Your task to perform on an android device: Open Google Chrome and open the bookmarks view Image 0: 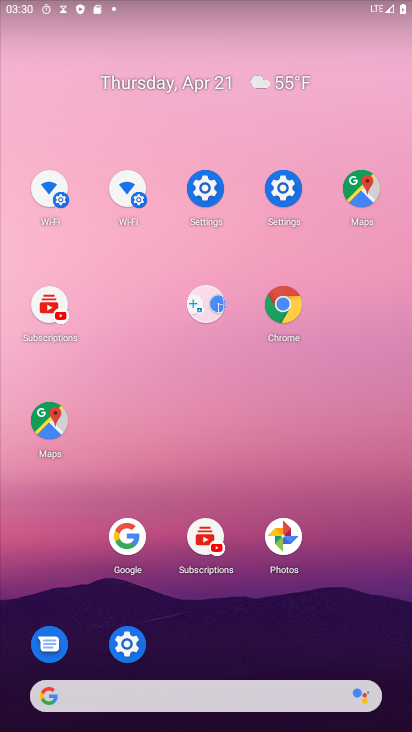
Step 0: drag from (297, 641) to (202, 81)
Your task to perform on an android device: Open Google Chrome and open the bookmarks view Image 1: 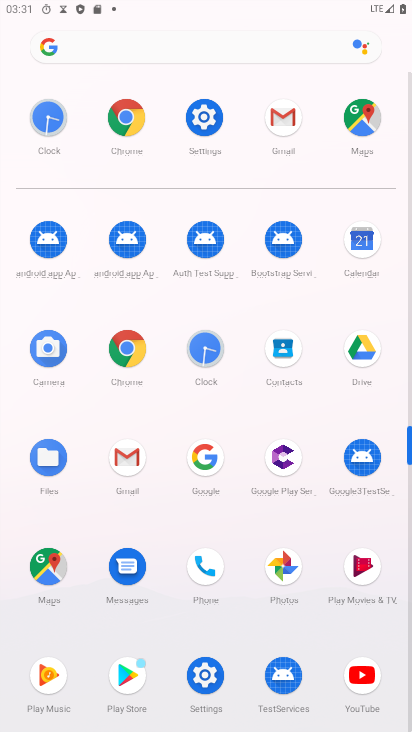
Step 1: drag from (236, 628) to (164, 126)
Your task to perform on an android device: Open Google Chrome and open the bookmarks view Image 2: 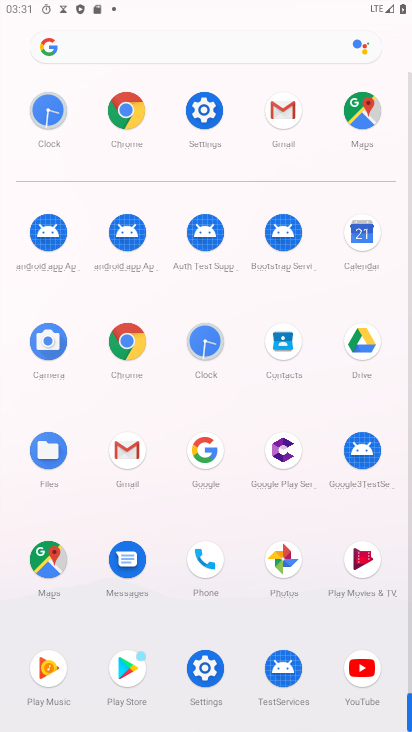
Step 2: click (204, 457)
Your task to perform on an android device: Open Google Chrome and open the bookmarks view Image 3: 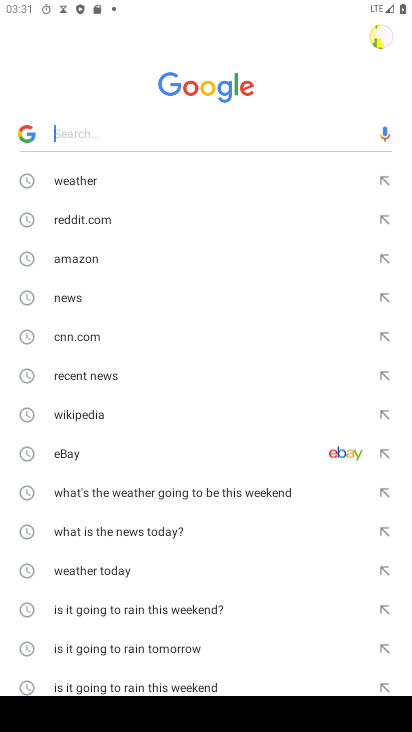
Step 3: press home button
Your task to perform on an android device: Open Google Chrome and open the bookmarks view Image 4: 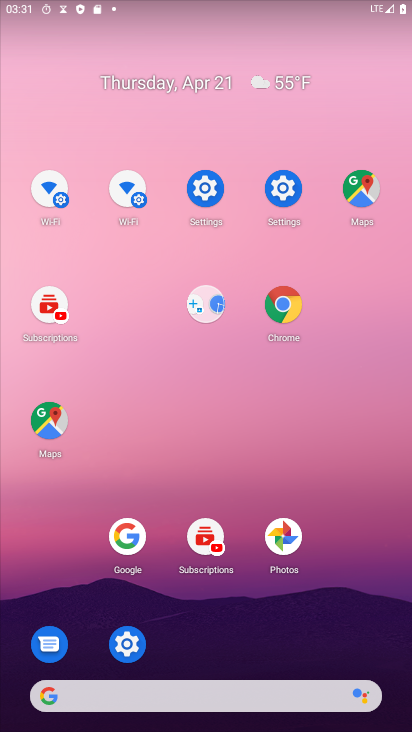
Step 4: click (281, 306)
Your task to perform on an android device: Open Google Chrome and open the bookmarks view Image 5: 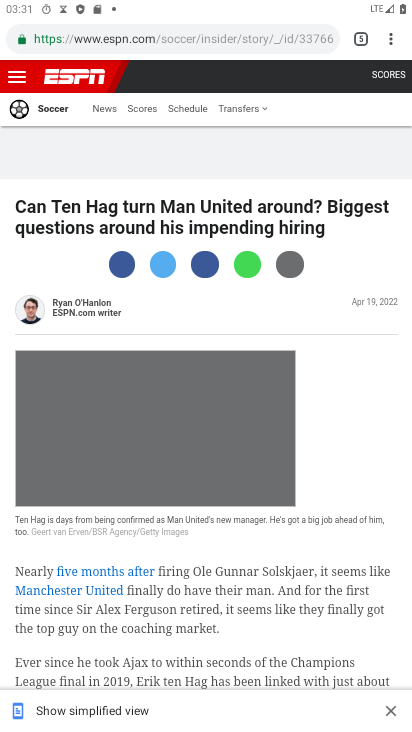
Step 5: drag from (390, 36) to (267, 187)
Your task to perform on an android device: Open Google Chrome and open the bookmarks view Image 6: 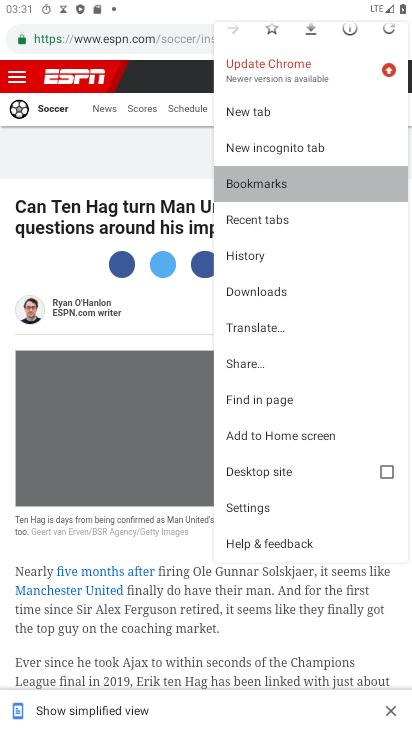
Step 6: click (267, 187)
Your task to perform on an android device: Open Google Chrome and open the bookmarks view Image 7: 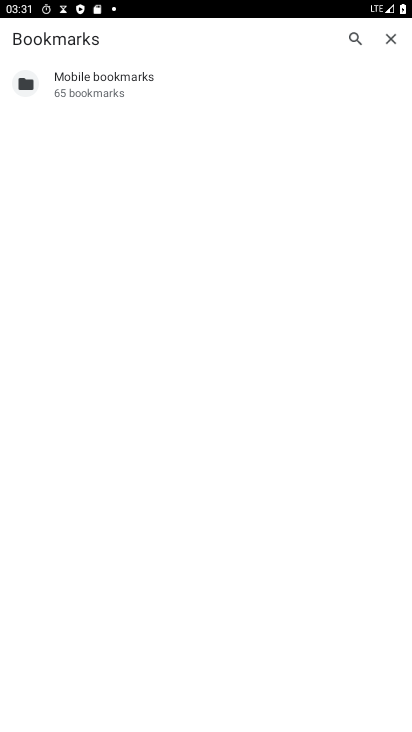
Step 7: task complete